Your task to perform on an android device: turn off translation in the chrome app Image 0: 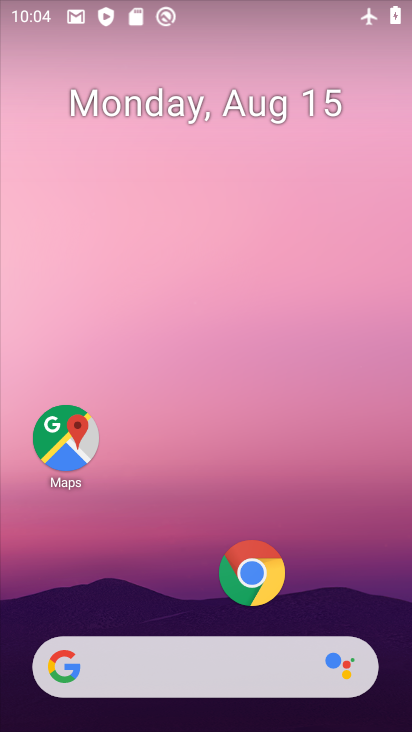
Step 0: click (253, 574)
Your task to perform on an android device: turn off translation in the chrome app Image 1: 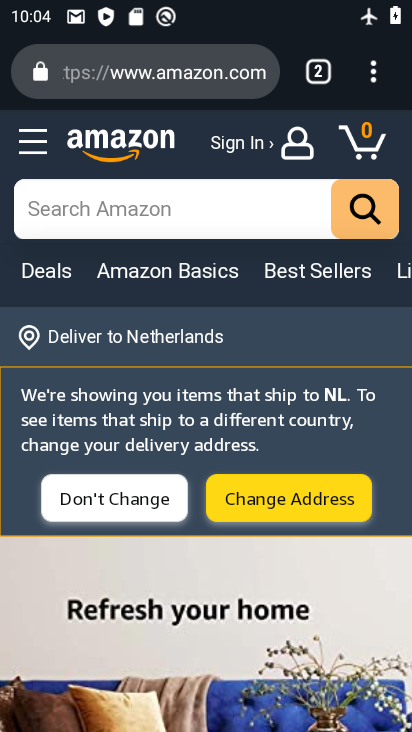
Step 1: click (374, 71)
Your task to perform on an android device: turn off translation in the chrome app Image 2: 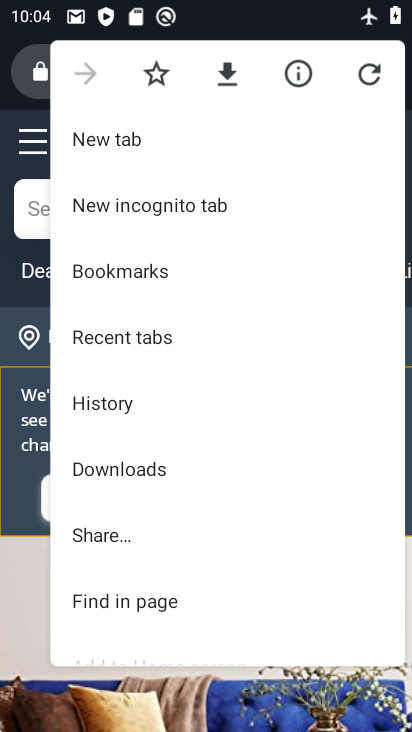
Step 2: drag from (220, 563) to (226, 238)
Your task to perform on an android device: turn off translation in the chrome app Image 3: 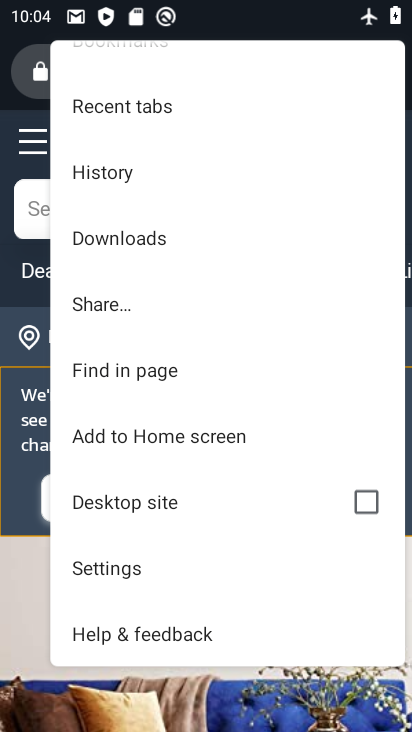
Step 3: click (109, 564)
Your task to perform on an android device: turn off translation in the chrome app Image 4: 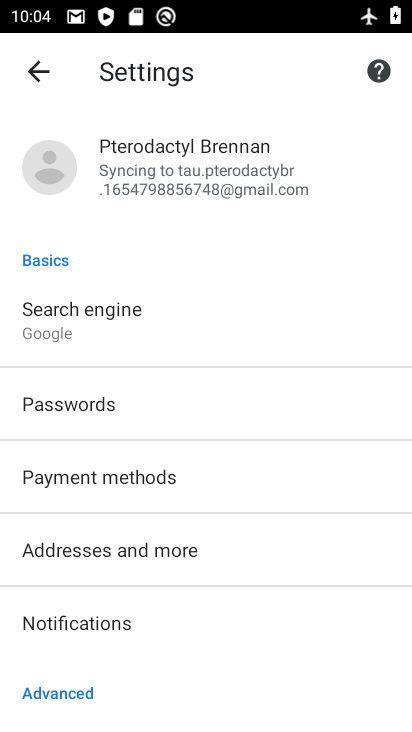
Step 4: drag from (221, 647) to (208, 343)
Your task to perform on an android device: turn off translation in the chrome app Image 5: 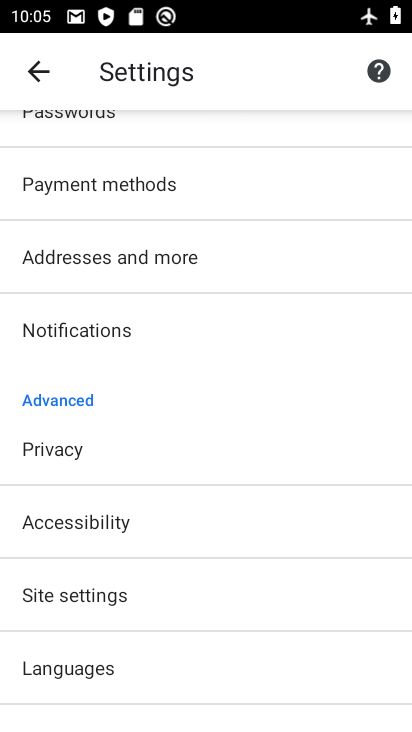
Step 5: click (64, 665)
Your task to perform on an android device: turn off translation in the chrome app Image 6: 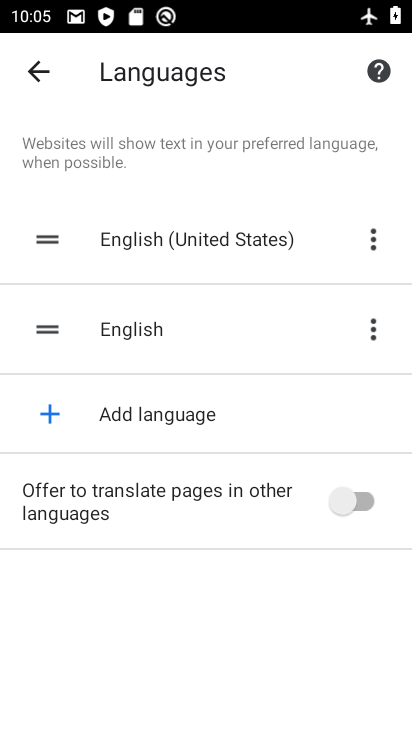
Step 6: task complete